Your task to perform on an android device: turn off translation in the chrome app Image 0: 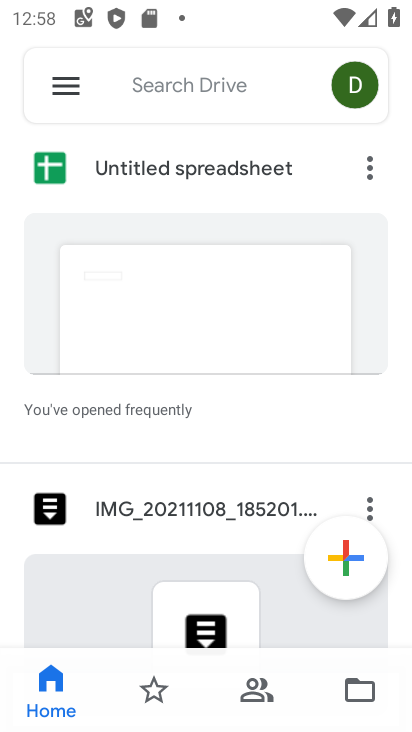
Step 0: press home button
Your task to perform on an android device: turn off translation in the chrome app Image 1: 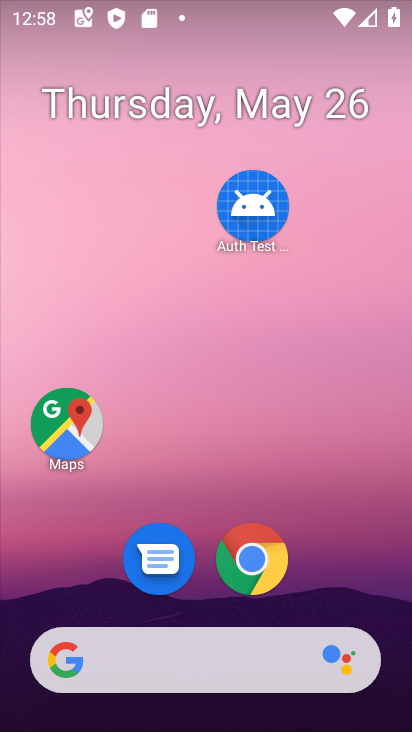
Step 1: click (267, 541)
Your task to perform on an android device: turn off translation in the chrome app Image 2: 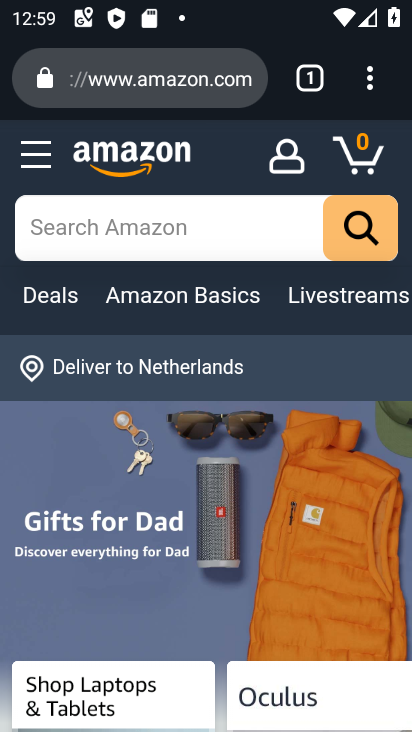
Step 2: click (384, 79)
Your task to perform on an android device: turn off translation in the chrome app Image 3: 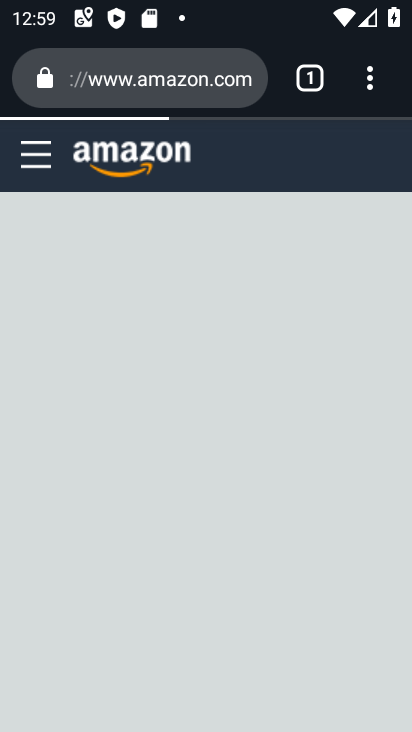
Step 3: click (384, 79)
Your task to perform on an android device: turn off translation in the chrome app Image 4: 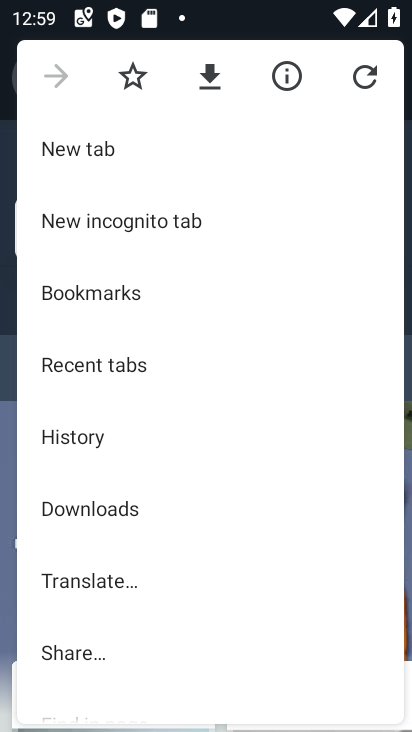
Step 4: drag from (222, 643) to (196, 244)
Your task to perform on an android device: turn off translation in the chrome app Image 5: 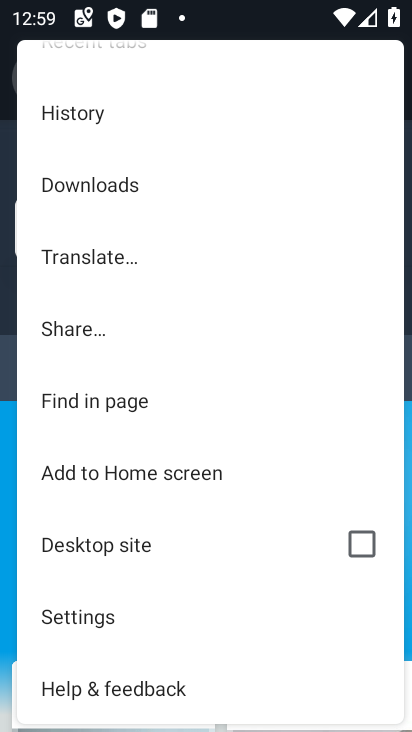
Step 5: click (119, 616)
Your task to perform on an android device: turn off translation in the chrome app Image 6: 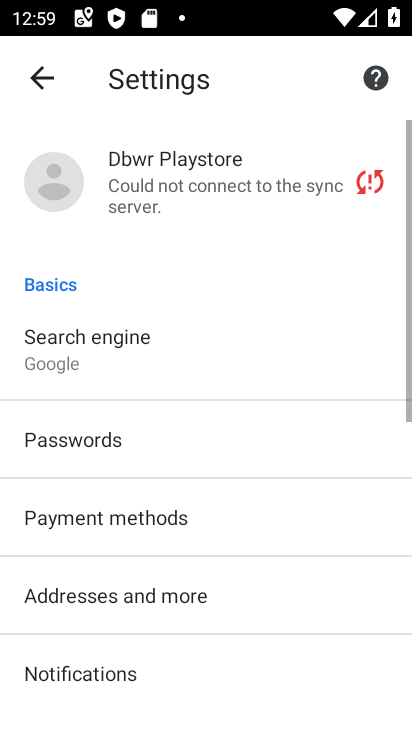
Step 6: drag from (195, 626) to (177, 259)
Your task to perform on an android device: turn off translation in the chrome app Image 7: 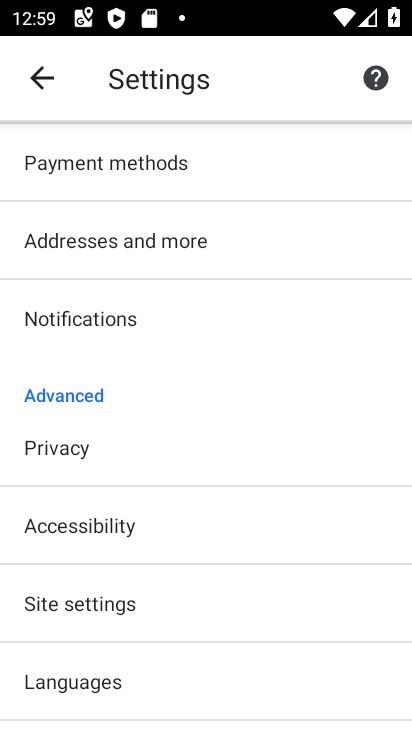
Step 7: click (137, 679)
Your task to perform on an android device: turn off translation in the chrome app Image 8: 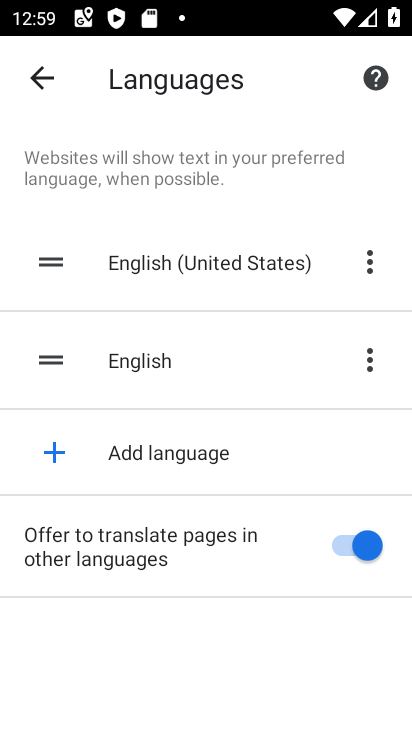
Step 8: click (359, 556)
Your task to perform on an android device: turn off translation in the chrome app Image 9: 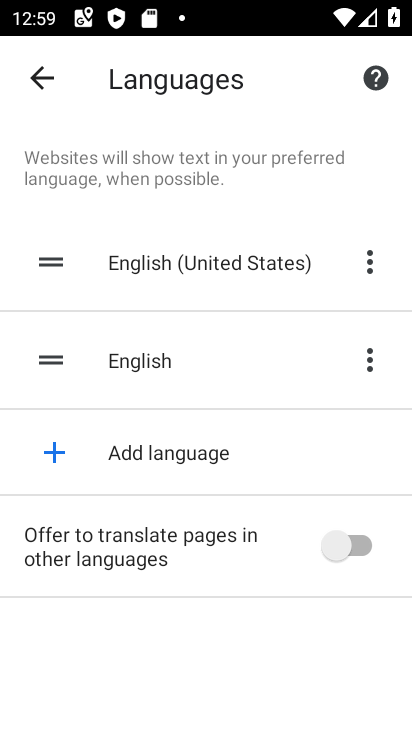
Step 9: task complete